Your task to perform on an android device: turn on the 12-hour format for clock Image 0: 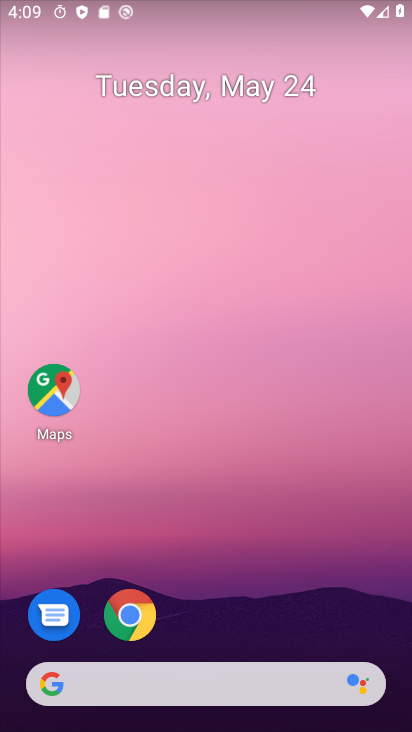
Step 0: drag from (245, 578) to (314, 216)
Your task to perform on an android device: turn on the 12-hour format for clock Image 1: 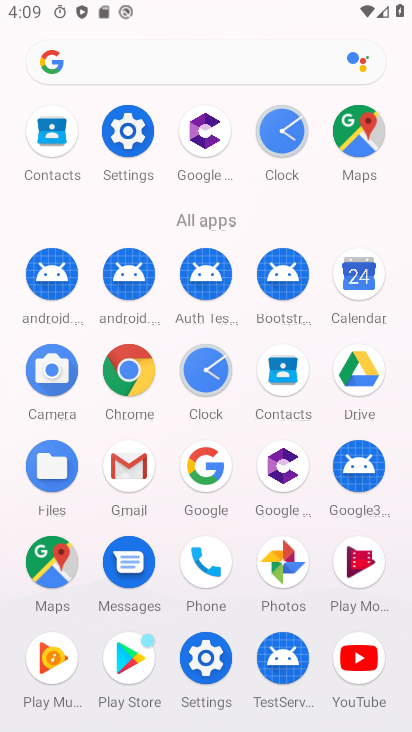
Step 1: click (200, 366)
Your task to perform on an android device: turn on the 12-hour format for clock Image 2: 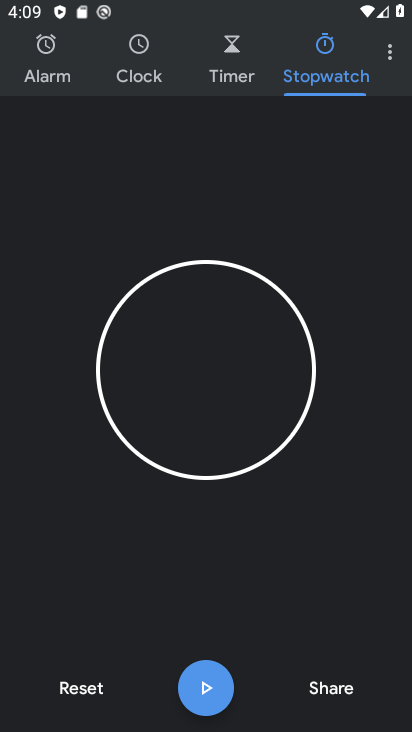
Step 2: click (388, 51)
Your task to perform on an android device: turn on the 12-hour format for clock Image 3: 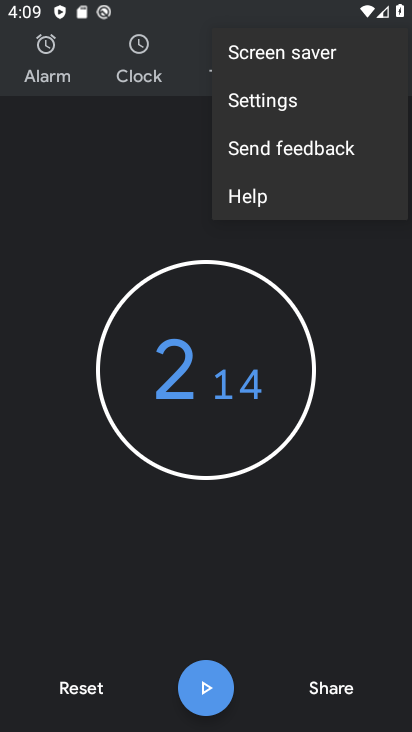
Step 3: click (287, 101)
Your task to perform on an android device: turn on the 12-hour format for clock Image 4: 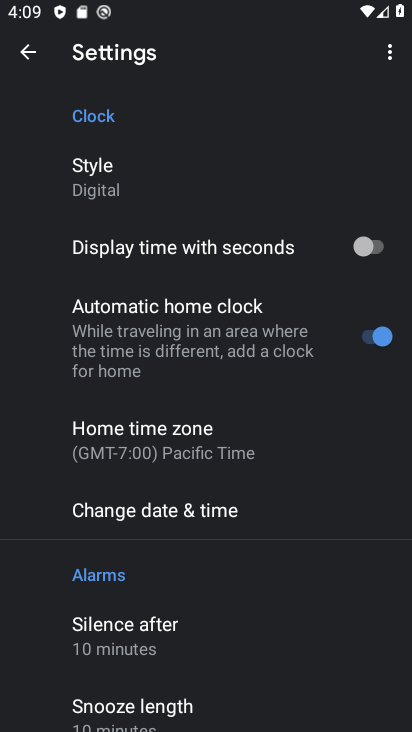
Step 4: click (129, 507)
Your task to perform on an android device: turn on the 12-hour format for clock Image 5: 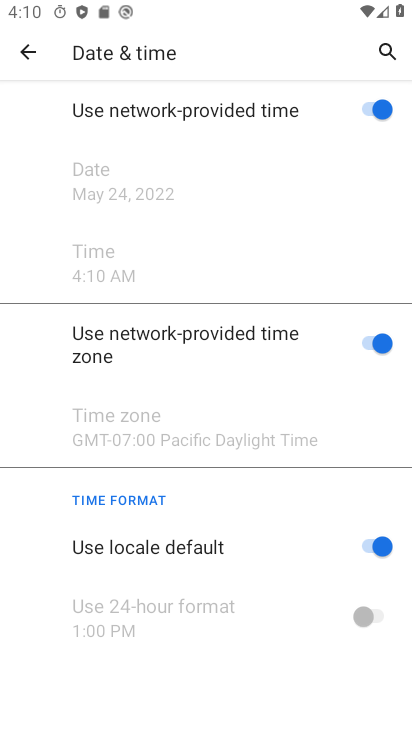
Step 5: task complete